Your task to perform on an android device: make emails show in primary in the gmail app Image 0: 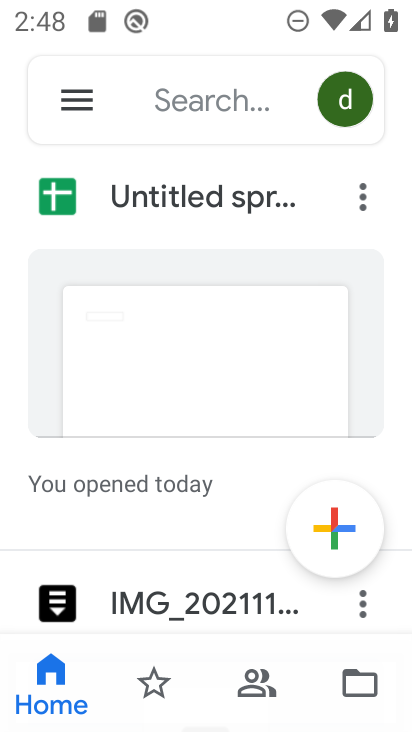
Step 0: press back button
Your task to perform on an android device: make emails show in primary in the gmail app Image 1: 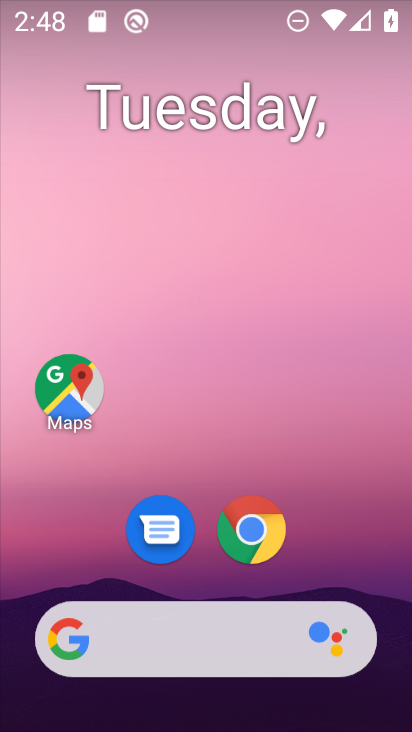
Step 1: drag from (158, 489) to (236, 118)
Your task to perform on an android device: make emails show in primary in the gmail app Image 2: 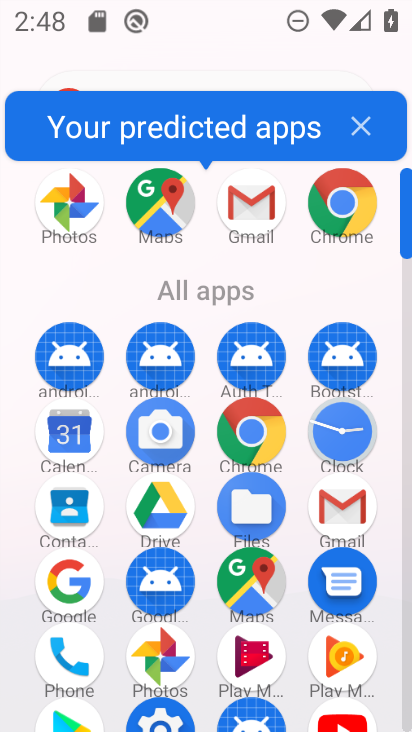
Step 2: click (262, 182)
Your task to perform on an android device: make emails show in primary in the gmail app Image 3: 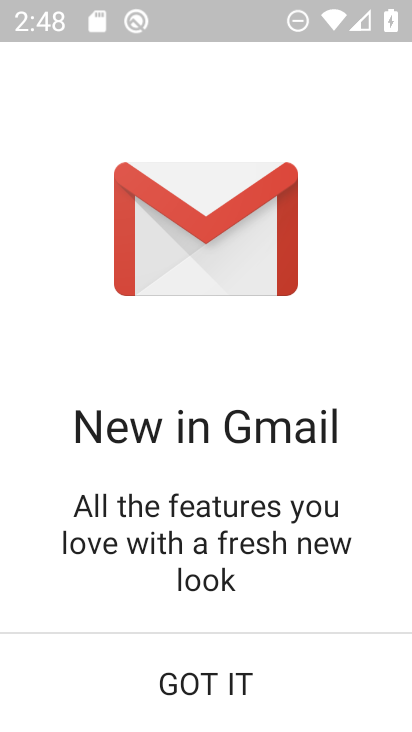
Step 3: click (195, 680)
Your task to perform on an android device: make emails show in primary in the gmail app Image 4: 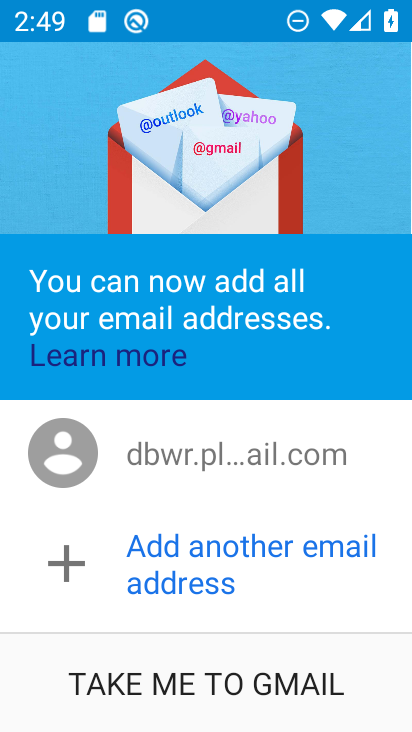
Step 4: click (97, 668)
Your task to perform on an android device: make emails show in primary in the gmail app Image 5: 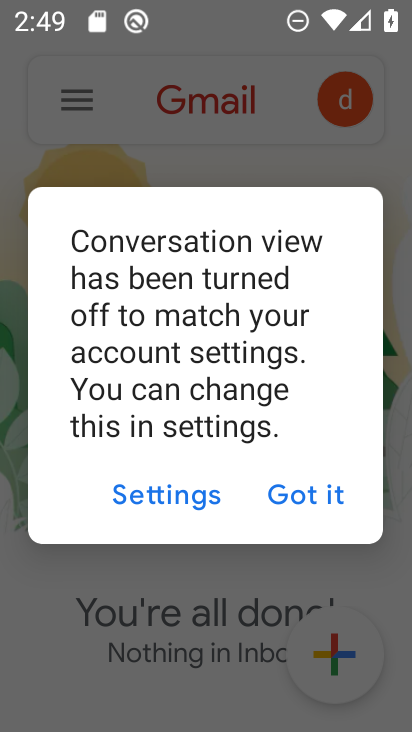
Step 5: click (305, 491)
Your task to perform on an android device: make emails show in primary in the gmail app Image 6: 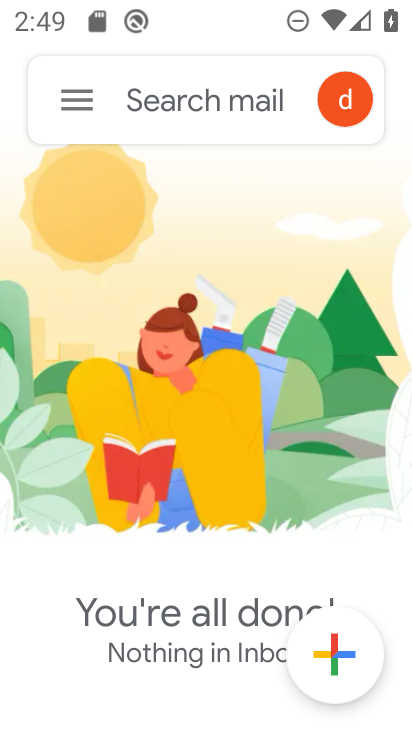
Step 6: click (67, 93)
Your task to perform on an android device: make emails show in primary in the gmail app Image 7: 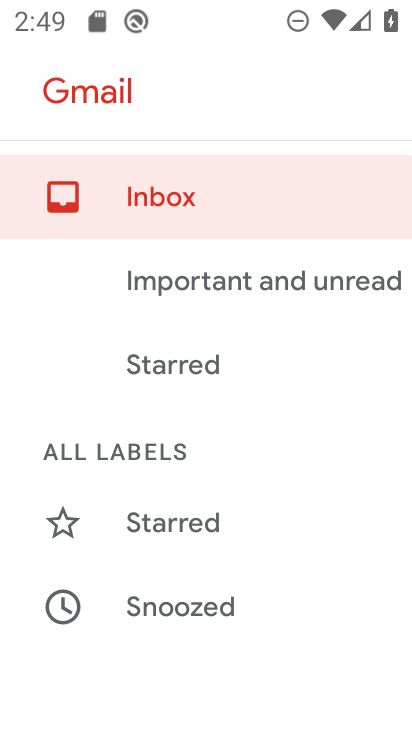
Step 7: drag from (242, 623) to (238, 98)
Your task to perform on an android device: make emails show in primary in the gmail app Image 8: 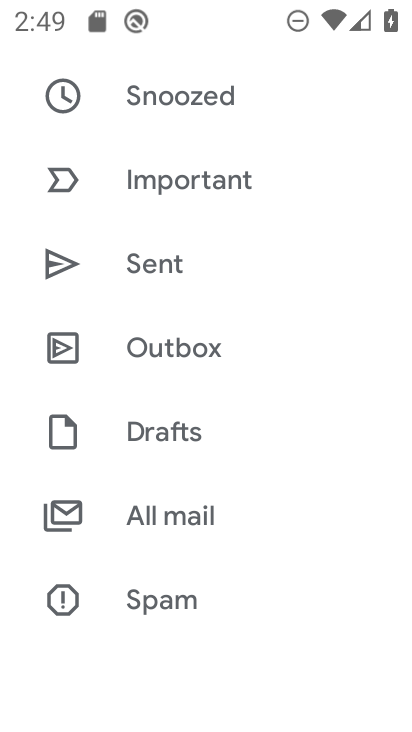
Step 8: drag from (191, 598) to (236, 106)
Your task to perform on an android device: make emails show in primary in the gmail app Image 9: 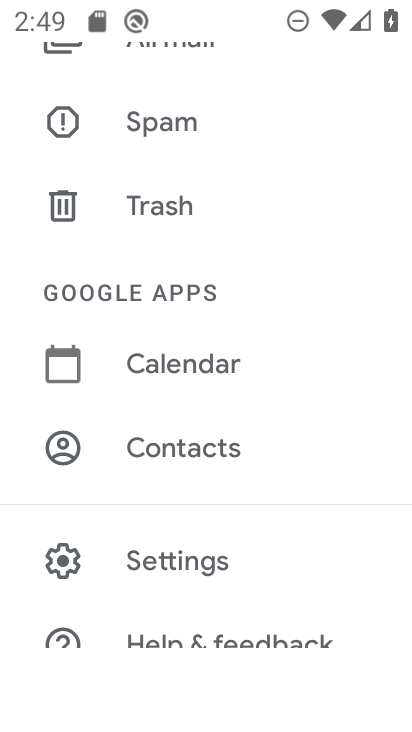
Step 9: click (164, 558)
Your task to perform on an android device: make emails show in primary in the gmail app Image 10: 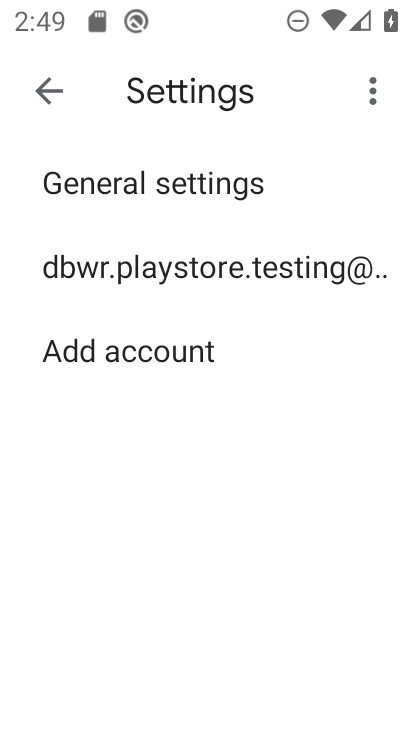
Step 10: click (145, 265)
Your task to perform on an android device: make emails show in primary in the gmail app Image 11: 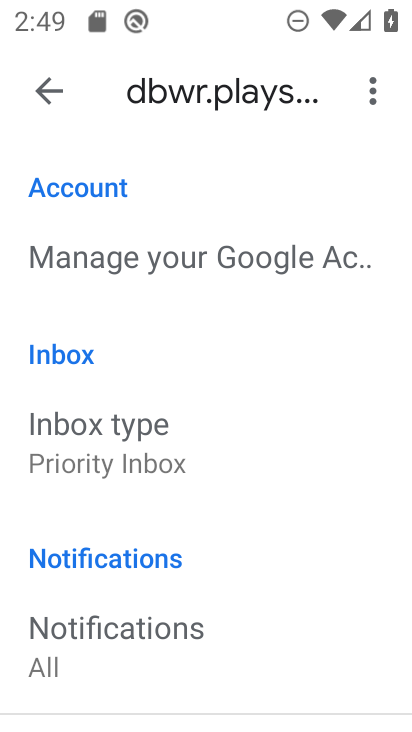
Step 11: task complete